Your task to perform on an android device: change the clock display to show seconds Image 0: 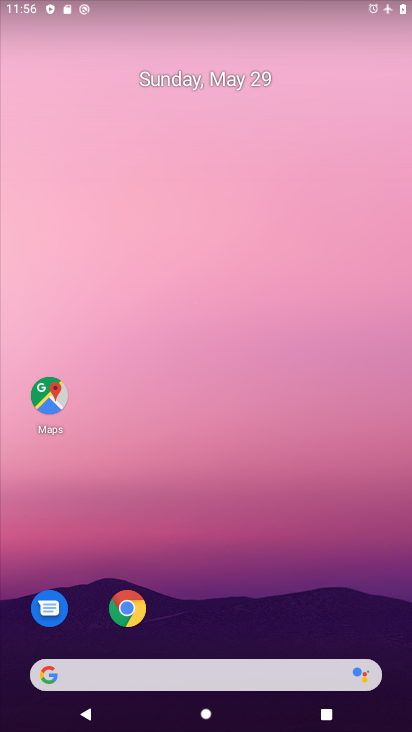
Step 0: drag from (201, 634) to (141, 123)
Your task to perform on an android device: change the clock display to show seconds Image 1: 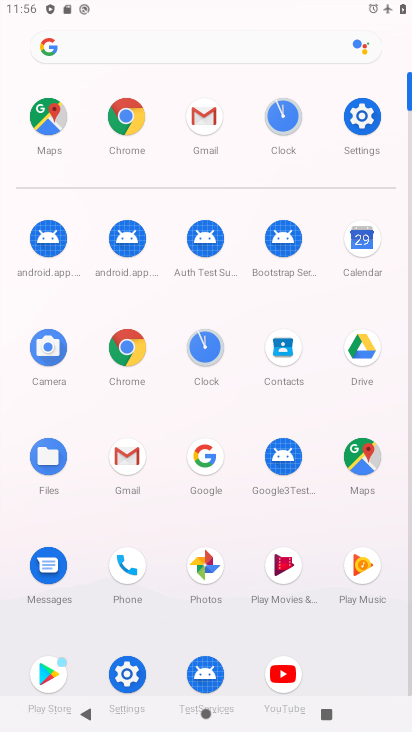
Step 1: click (197, 344)
Your task to perform on an android device: change the clock display to show seconds Image 2: 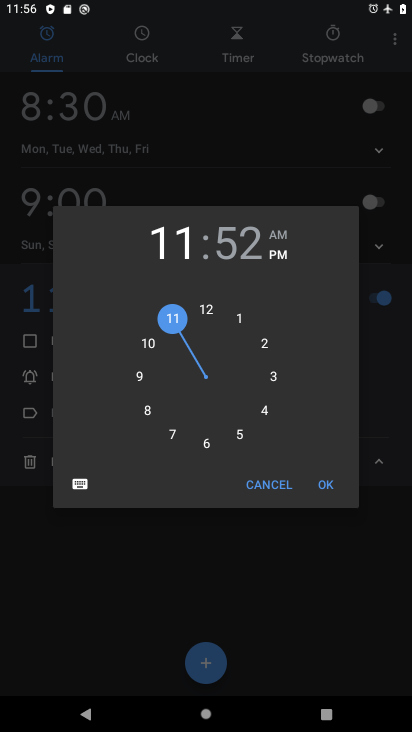
Step 2: click (260, 472)
Your task to perform on an android device: change the clock display to show seconds Image 3: 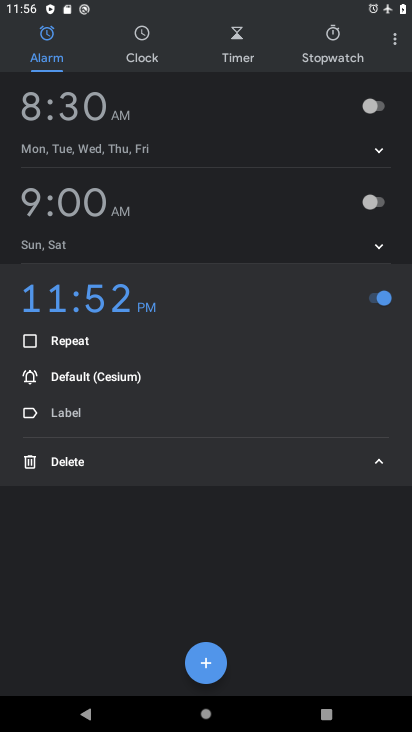
Step 3: click (390, 39)
Your task to perform on an android device: change the clock display to show seconds Image 4: 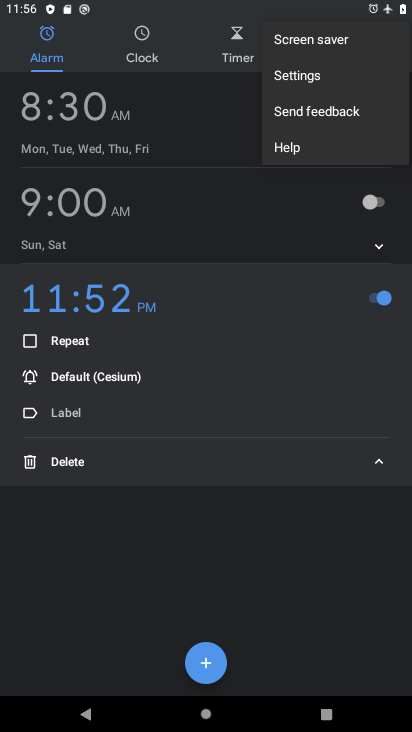
Step 4: click (298, 90)
Your task to perform on an android device: change the clock display to show seconds Image 5: 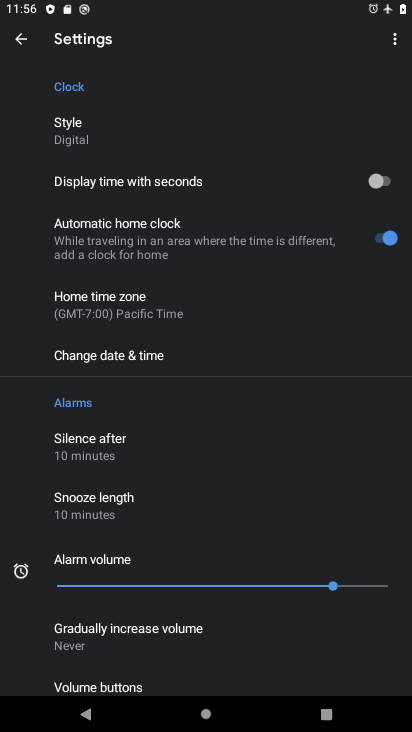
Step 5: click (182, 179)
Your task to perform on an android device: change the clock display to show seconds Image 6: 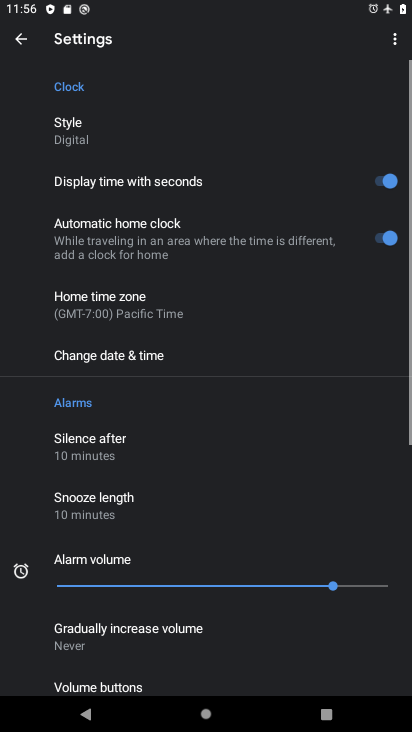
Step 6: task complete